Your task to perform on an android device: create a new album in the google photos Image 0: 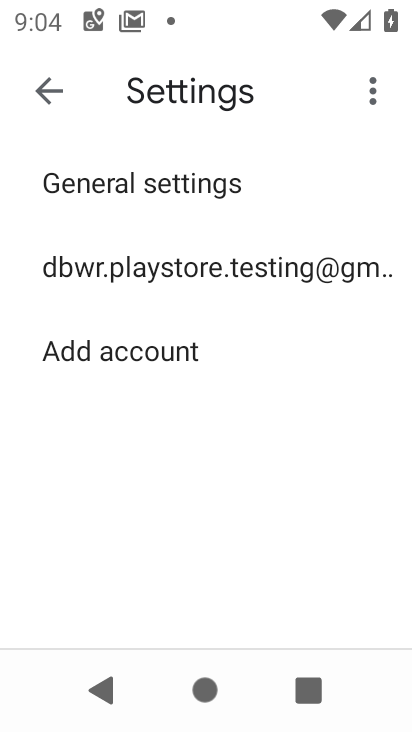
Step 0: press home button
Your task to perform on an android device: create a new album in the google photos Image 1: 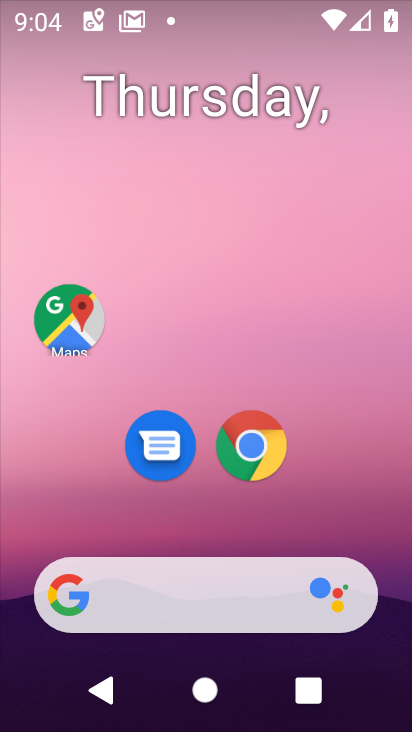
Step 1: drag from (351, 523) to (299, 126)
Your task to perform on an android device: create a new album in the google photos Image 2: 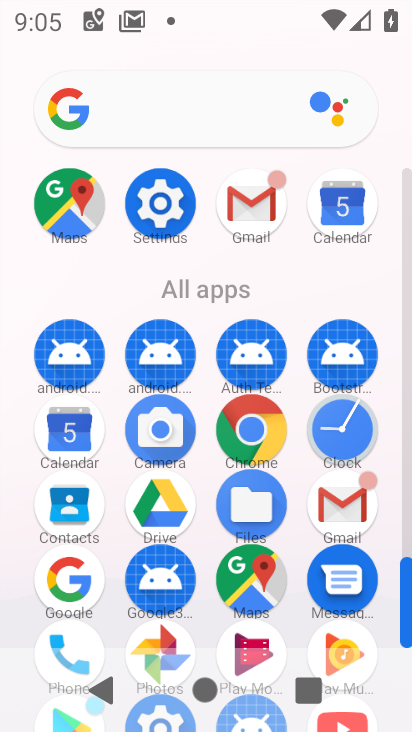
Step 2: click (161, 632)
Your task to perform on an android device: create a new album in the google photos Image 3: 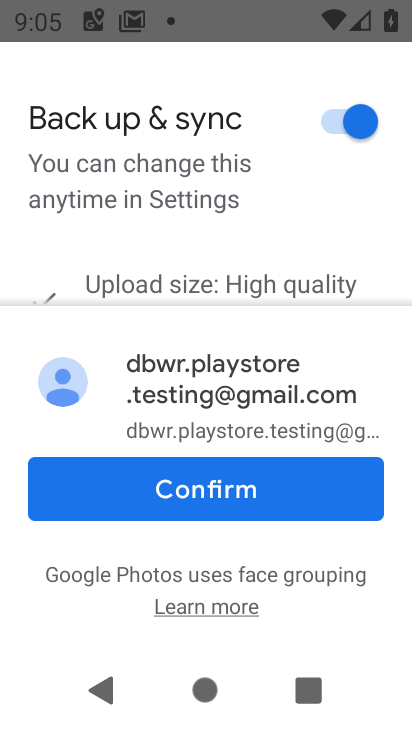
Step 3: click (229, 493)
Your task to perform on an android device: create a new album in the google photos Image 4: 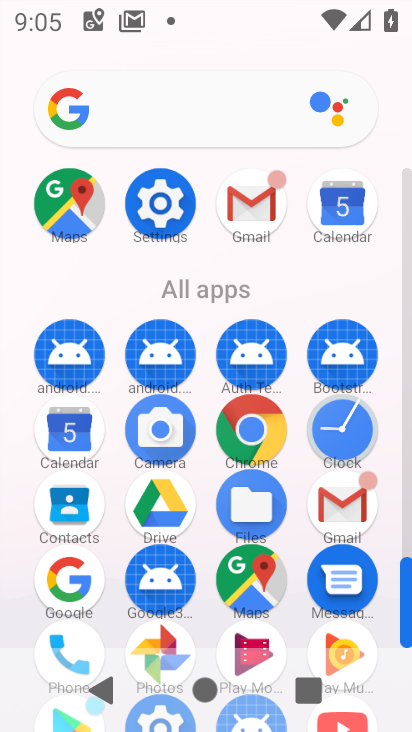
Step 4: click (163, 636)
Your task to perform on an android device: create a new album in the google photos Image 5: 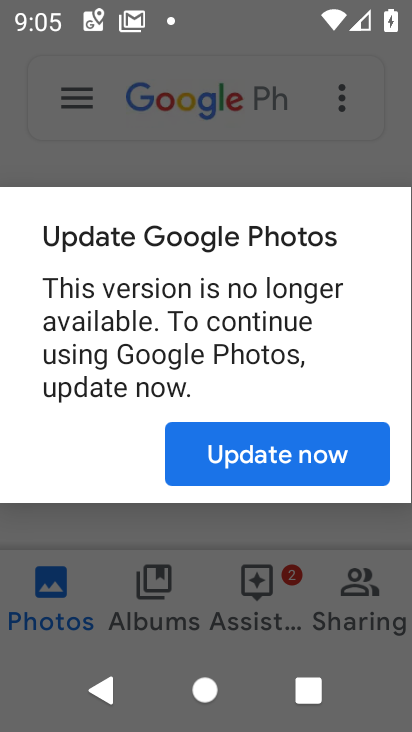
Step 5: click (312, 459)
Your task to perform on an android device: create a new album in the google photos Image 6: 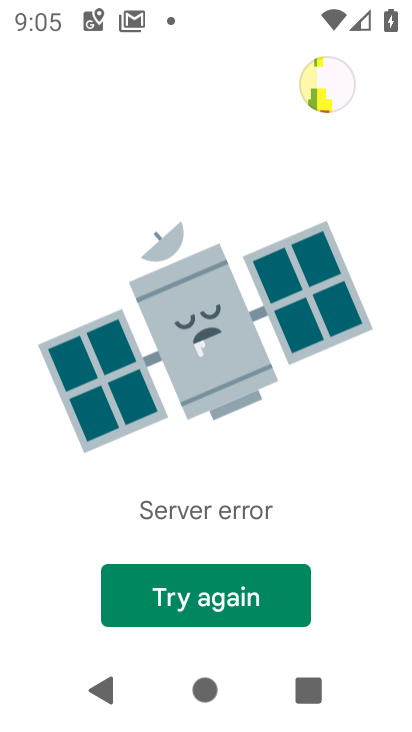
Step 6: click (166, 619)
Your task to perform on an android device: create a new album in the google photos Image 7: 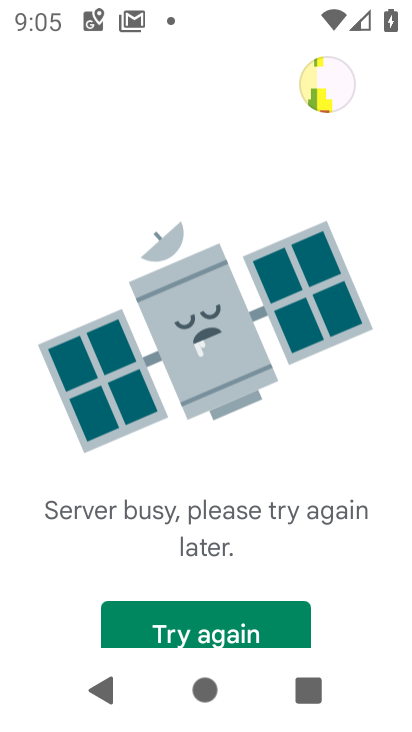
Step 7: task complete